Your task to perform on an android device: install app "Walmart Shopping & Grocery" Image 0: 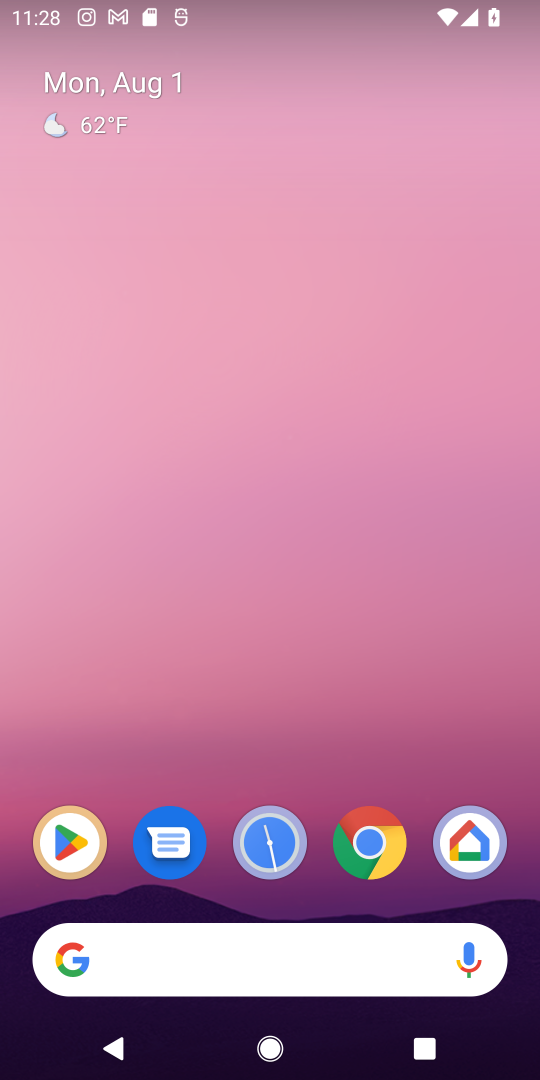
Step 0: click (88, 843)
Your task to perform on an android device: install app "Walmart Shopping & Grocery" Image 1: 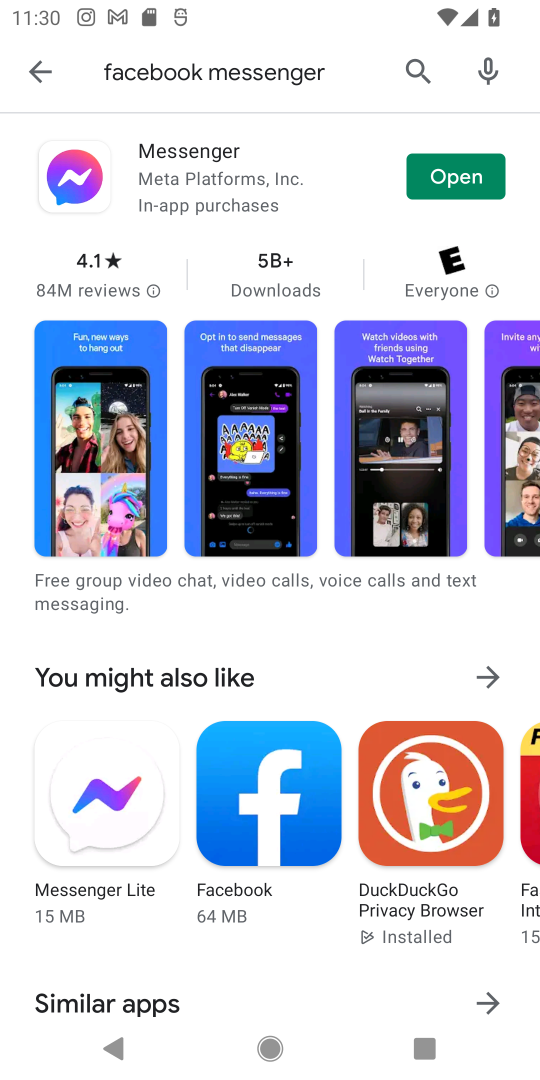
Step 1: click (412, 64)
Your task to perform on an android device: install app "Walmart Shopping & Grocery" Image 2: 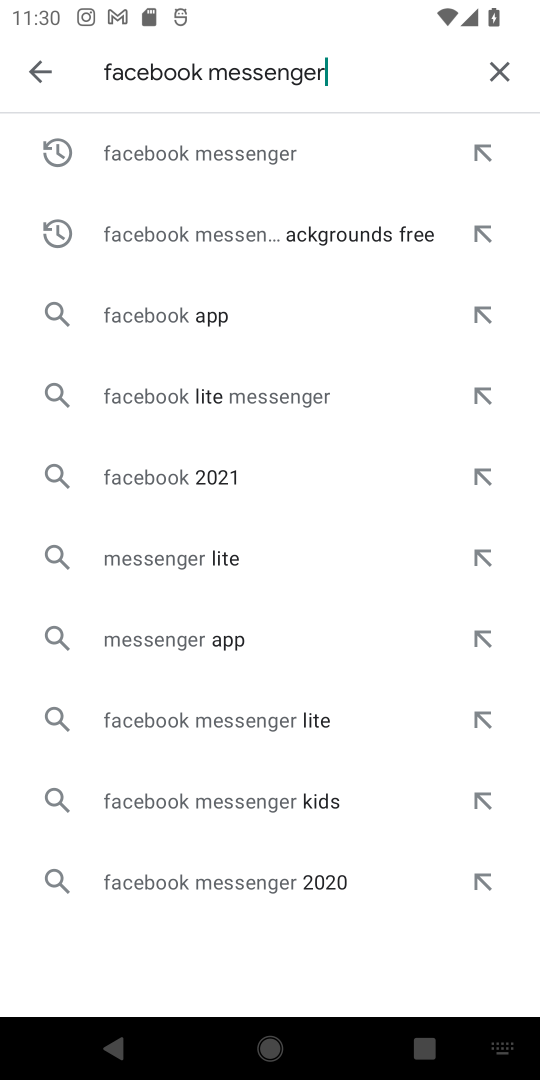
Step 2: click (477, 71)
Your task to perform on an android device: install app "Walmart Shopping & Grocery" Image 3: 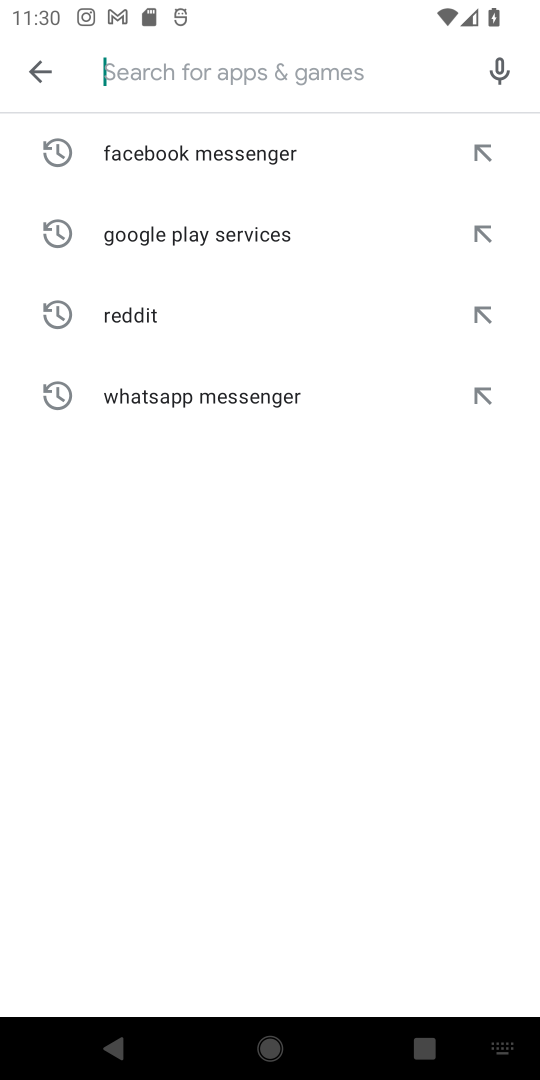
Step 3: click (149, 65)
Your task to perform on an android device: install app "Walmart Shopping & Grocery" Image 4: 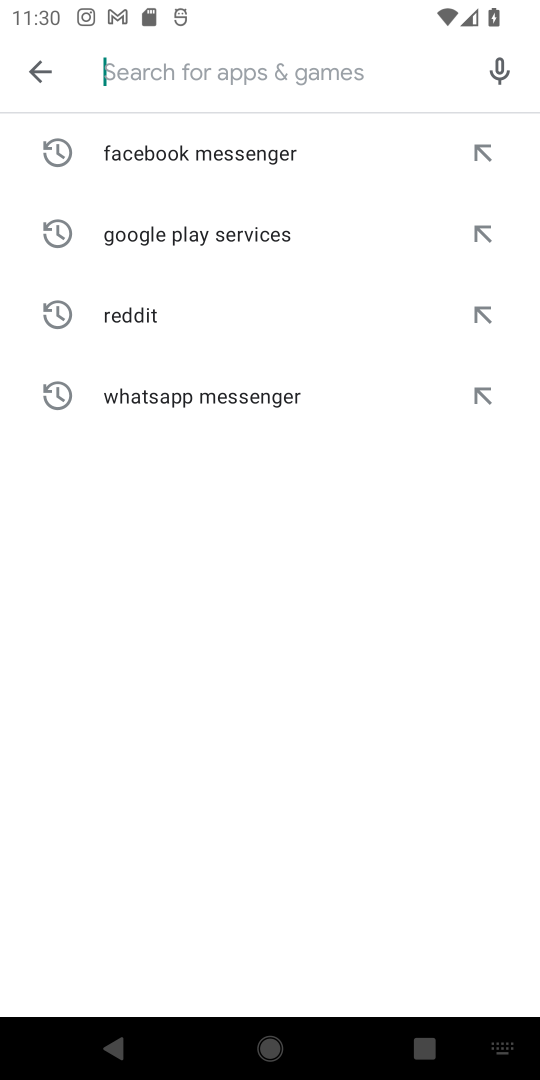
Step 4: type "Walmart Shopping & Grocery"
Your task to perform on an android device: install app "Walmart Shopping & Grocery" Image 5: 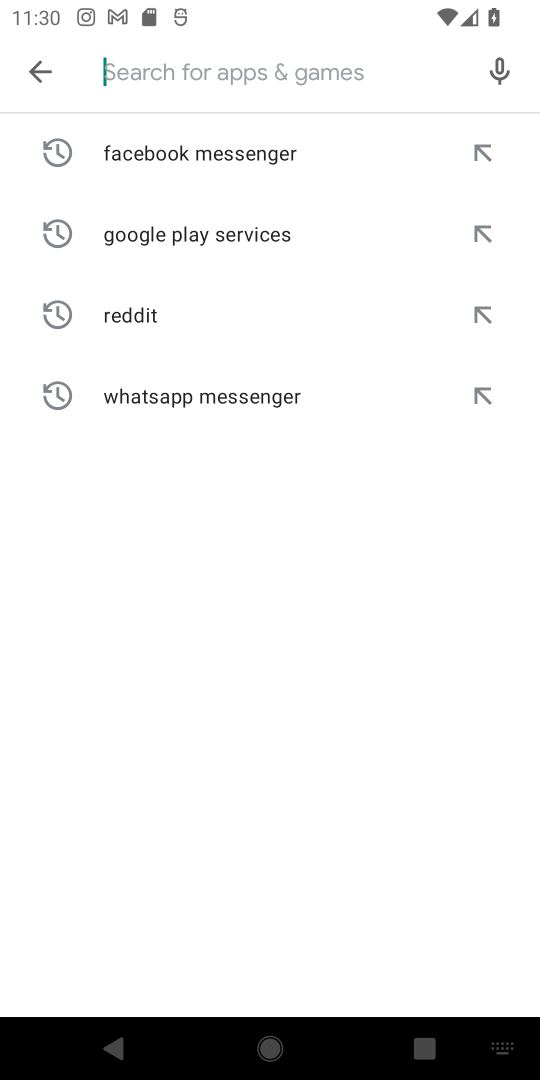
Step 5: click (296, 567)
Your task to perform on an android device: install app "Walmart Shopping & Grocery" Image 6: 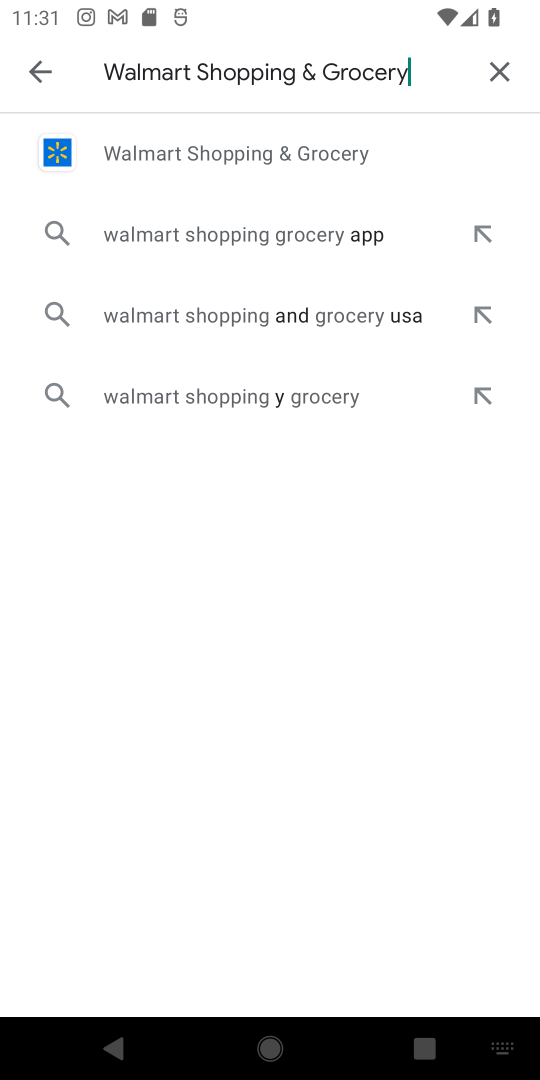
Step 6: click (285, 164)
Your task to perform on an android device: install app "Walmart Shopping & Grocery" Image 7: 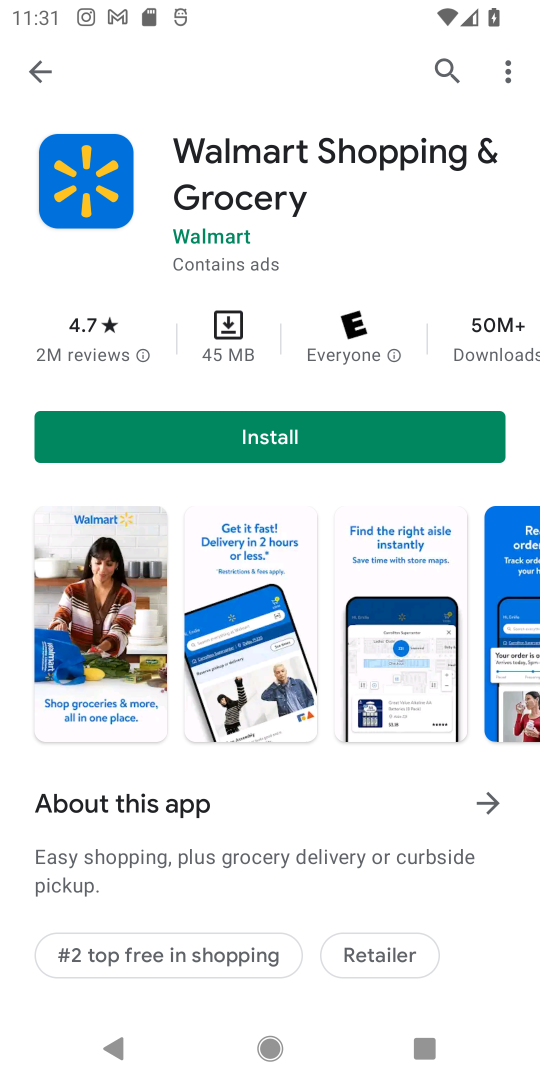
Step 7: click (246, 425)
Your task to perform on an android device: install app "Walmart Shopping & Grocery" Image 8: 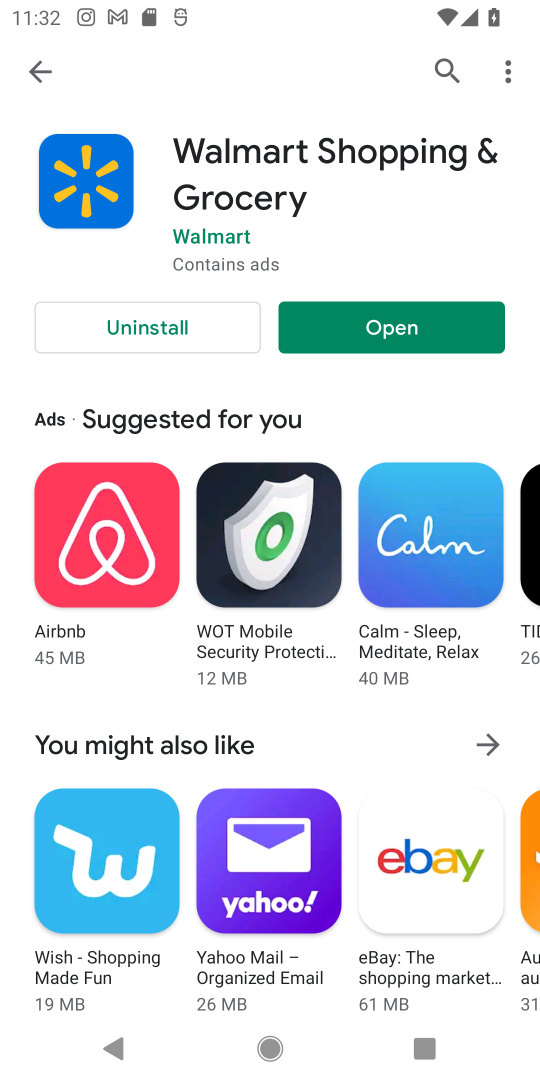
Step 8: task complete